Your task to perform on an android device: show emergency info Image 0: 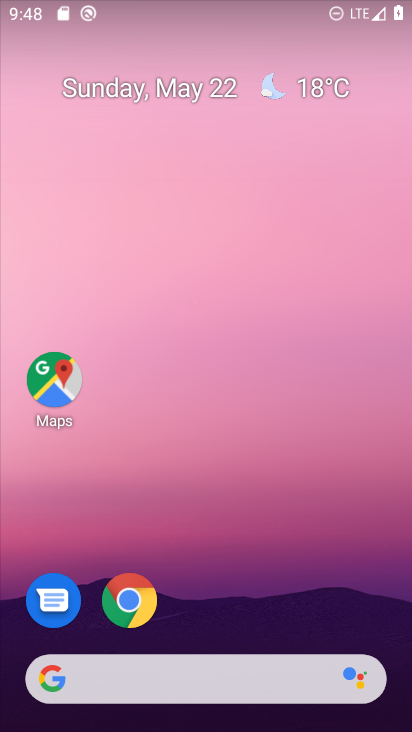
Step 0: drag from (398, 622) to (276, 58)
Your task to perform on an android device: show emergency info Image 1: 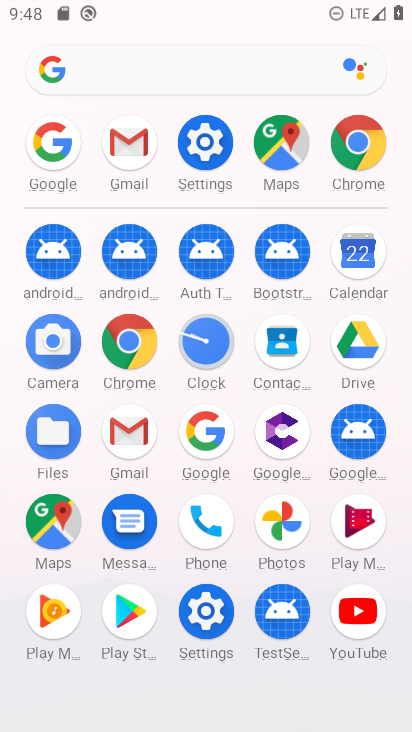
Step 1: click (204, 612)
Your task to perform on an android device: show emergency info Image 2: 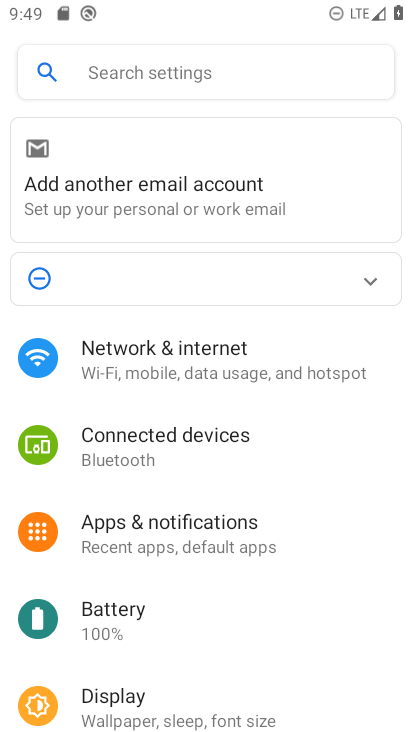
Step 2: drag from (187, 675) to (143, 10)
Your task to perform on an android device: show emergency info Image 3: 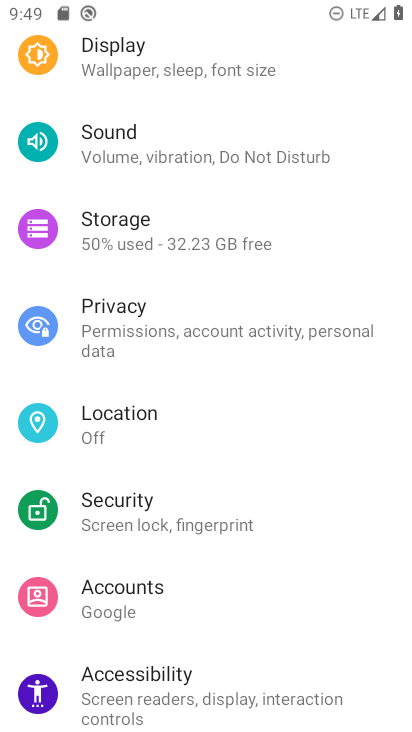
Step 3: drag from (136, 687) to (190, 44)
Your task to perform on an android device: show emergency info Image 4: 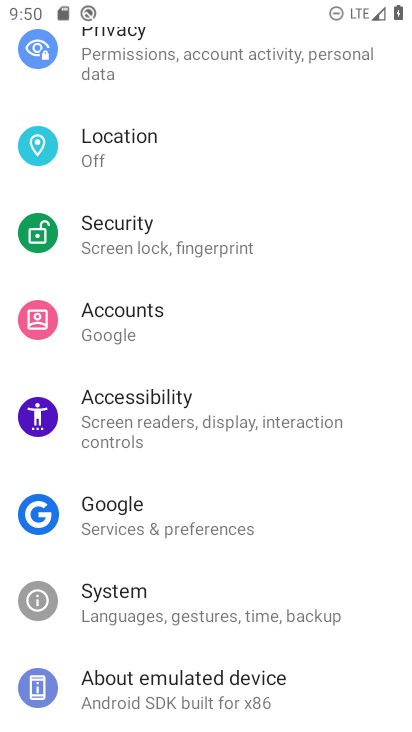
Step 4: click (187, 681)
Your task to perform on an android device: show emergency info Image 5: 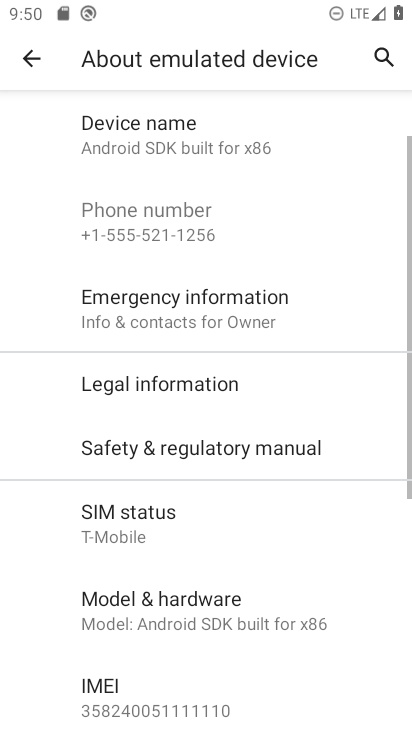
Step 5: click (226, 304)
Your task to perform on an android device: show emergency info Image 6: 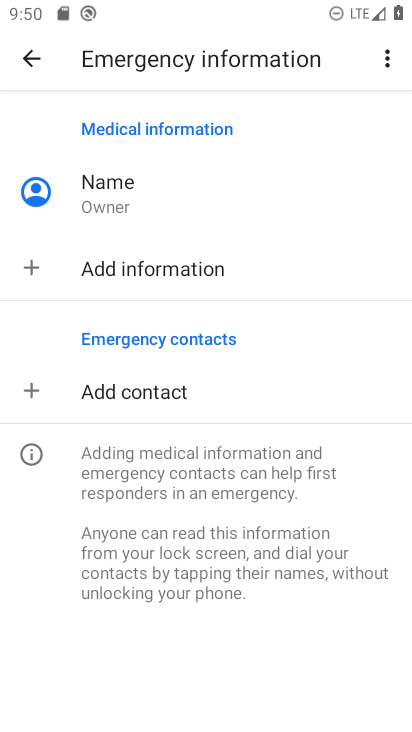
Step 6: task complete